Your task to perform on an android device: What is the recent news? Image 0: 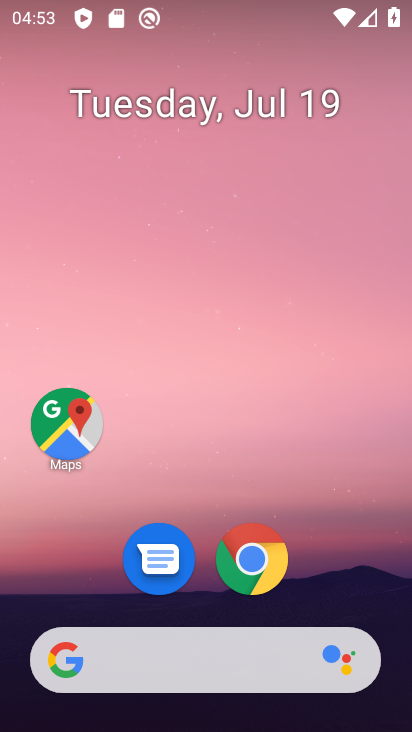
Step 0: click (188, 650)
Your task to perform on an android device: What is the recent news? Image 1: 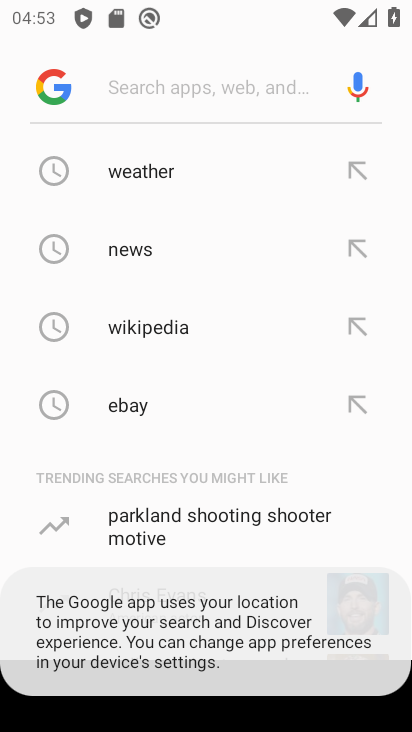
Step 1: click (154, 99)
Your task to perform on an android device: What is the recent news? Image 2: 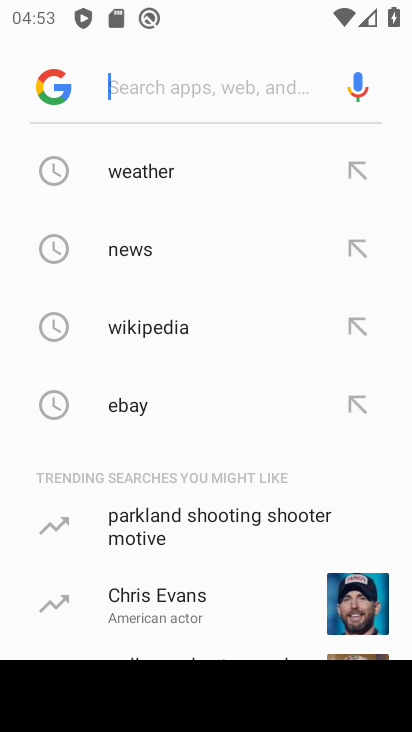
Step 2: type "recent news"
Your task to perform on an android device: What is the recent news? Image 3: 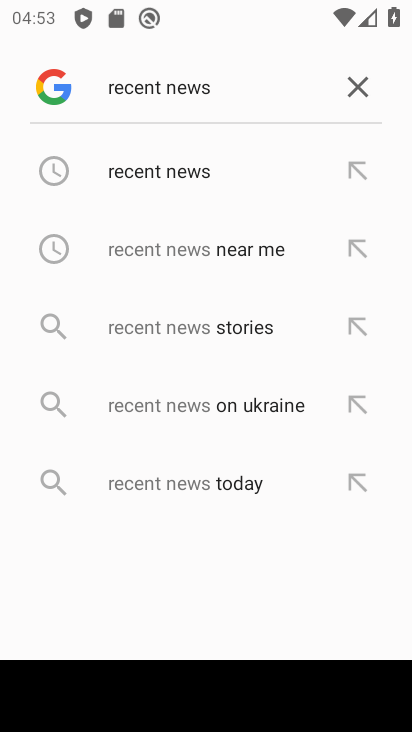
Step 3: click (177, 164)
Your task to perform on an android device: What is the recent news? Image 4: 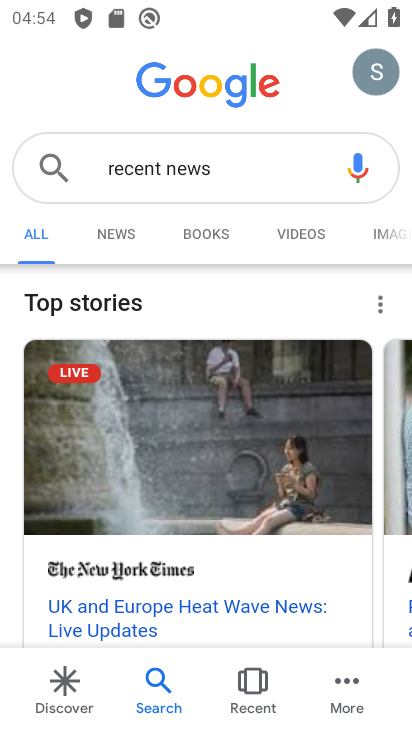
Step 4: task complete